Your task to perform on an android device: set default search engine in the chrome app Image 0: 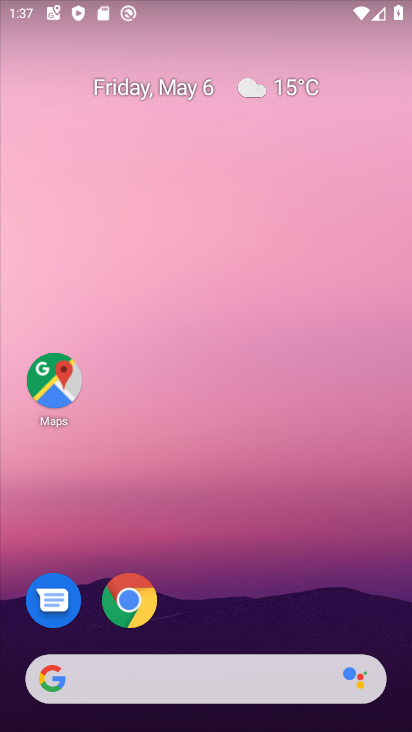
Step 0: drag from (335, 596) to (263, 79)
Your task to perform on an android device: set default search engine in the chrome app Image 1: 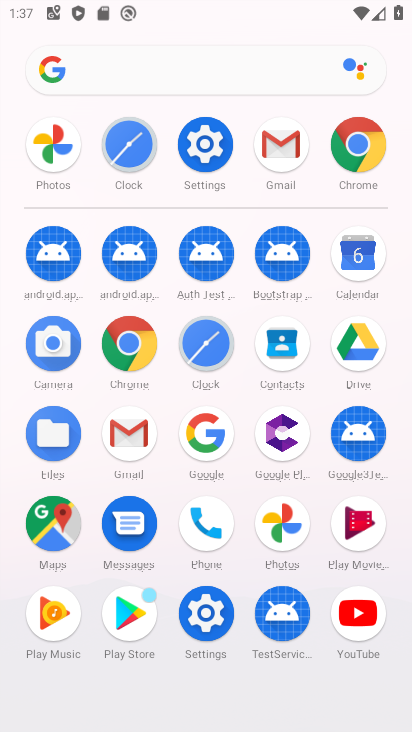
Step 1: click (355, 155)
Your task to perform on an android device: set default search engine in the chrome app Image 2: 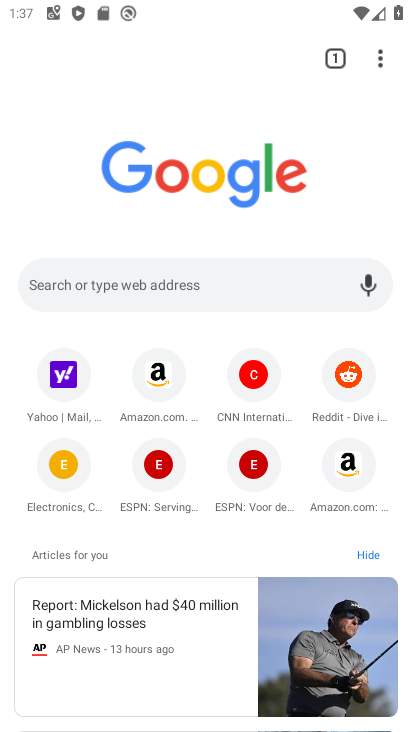
Step 2: click (383, 54)
Your task to perform on an android device: set default search engine in the chrome app Image 3: 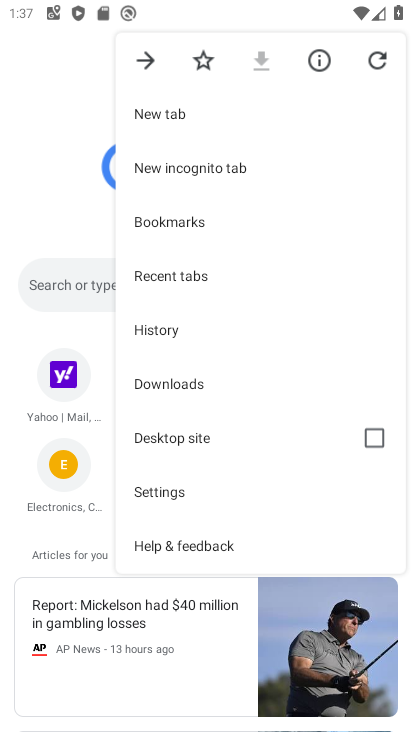
Step 3: click (175, 479)
Your task to perform on an android device: set default search engine in the chrome app Image 4: 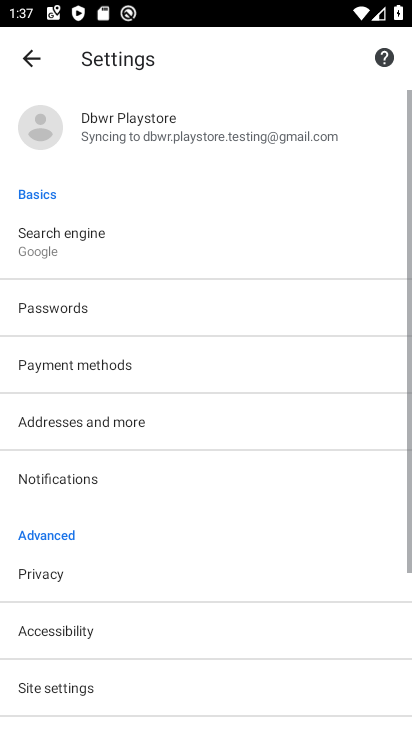
Step 4: click (119, 263)
Your task to perform on an android device: set default search engine in the chrome app Image 5: 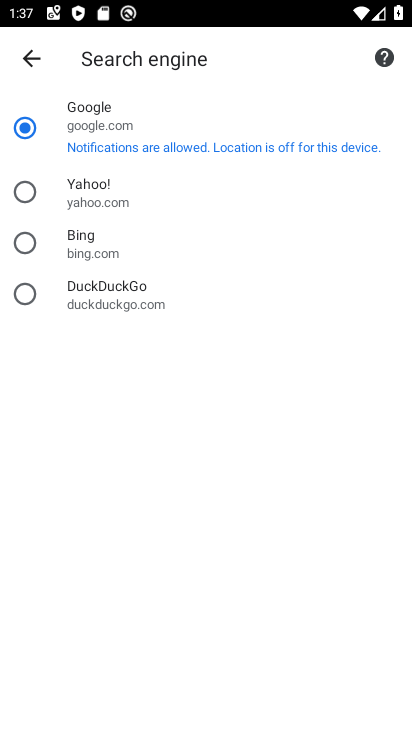
Step 5: click (96, 199)
Your task to perform on an android device: set default search engine in the chrome app Image 6: 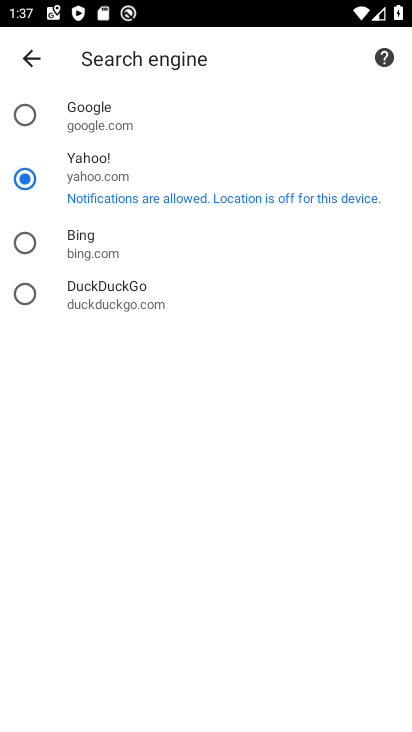
Step 6: task complete